Your task to perform on an android device: Toggle the flashlight Image 0: 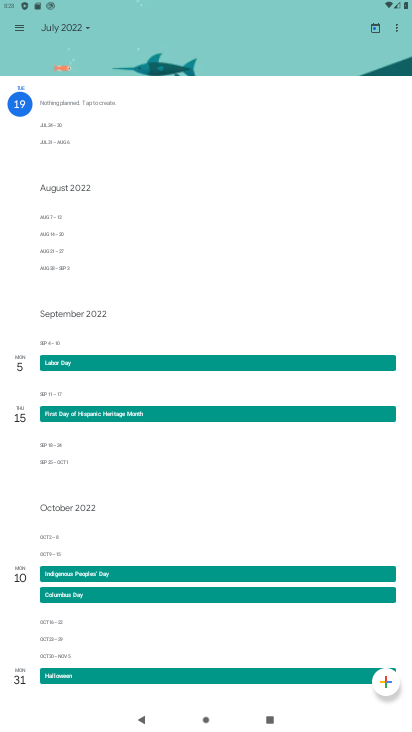
Step 0: press home button
Your task to perform on an android device: Toggle the flashlight Image 1: 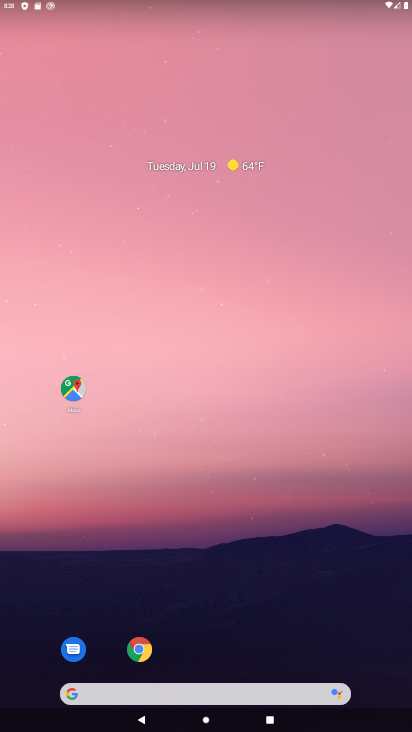
Step 1: task complete